Your task to perform on an android device: Open internet settings Image 0: 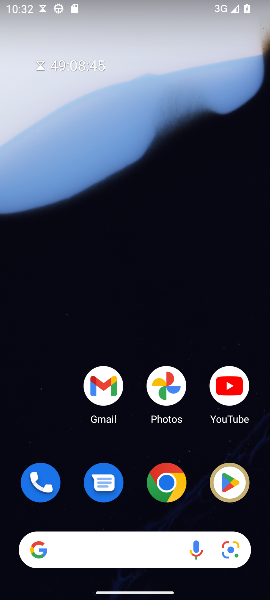
Step 0: drag from (96, 522) to (140, 88)
Your task to perform on an android device: Open internet settings Image 1: 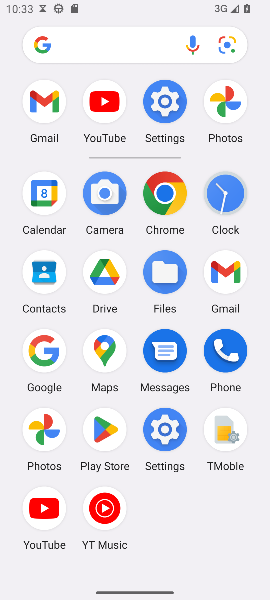
Step 1: click (168, 107)
Your task to perform on an android device: Open internet settings Image 2: 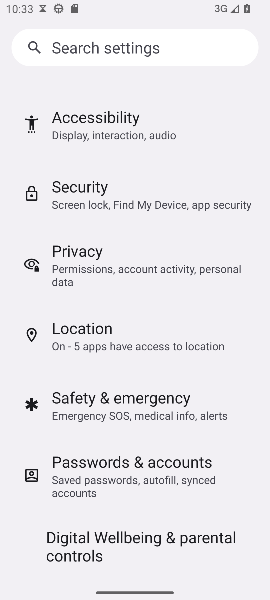
Step 2: drag from (171, 117) to (238, 413)
Your task to perform on an android device: Open internet settings Image 3: 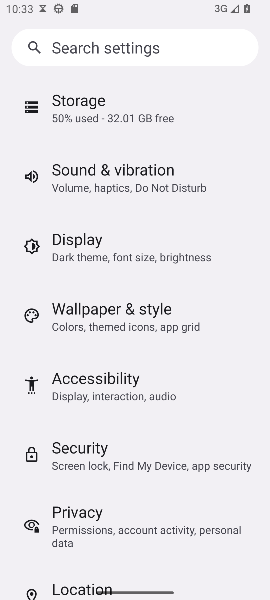
Step 3: drag from (141, 142) to (243, 442)
Your task to perform on an android device: Open internet settings Image 4: 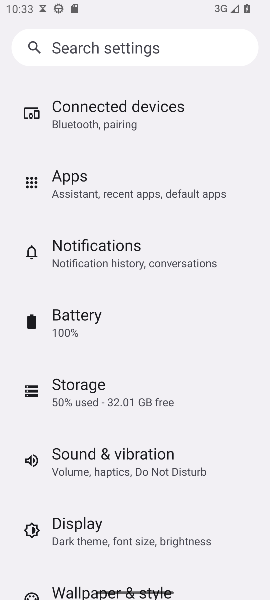
Step 4: drag from (131, 154) to (206, 427)
Your task to perform on an android device: Open internet settings Image 5: 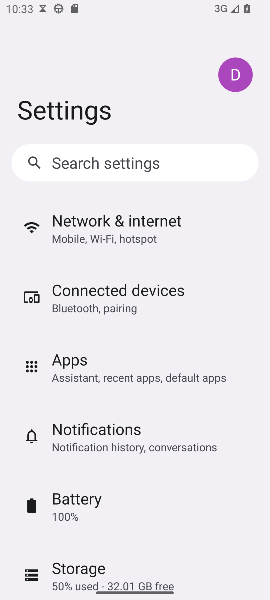
Step 5: click (96, 234)
Your task to perform on an android device: Open internet settings Image 6: 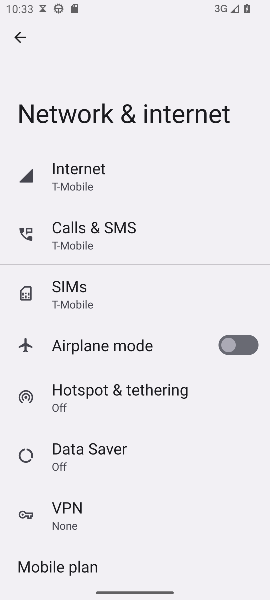
Step 6: click (67, 178)
Your task to perform on an android device: Open internet settings Image 7: 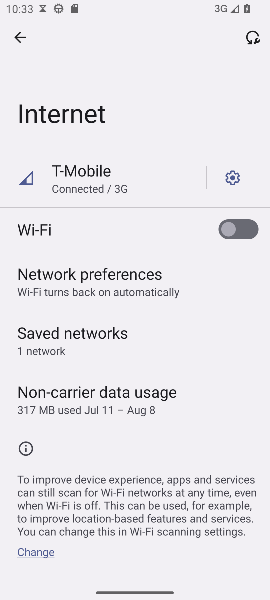
Step 7: task complete